Your task to perform on an android device: turn notification dots off Image 0: 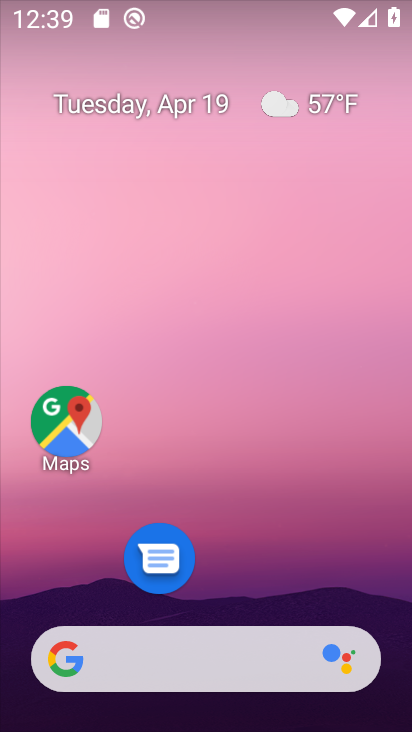
Step 0: drag from (251, 456) to (269, 122)
Your task to perform on an android device: turn notification dots off Image 1: 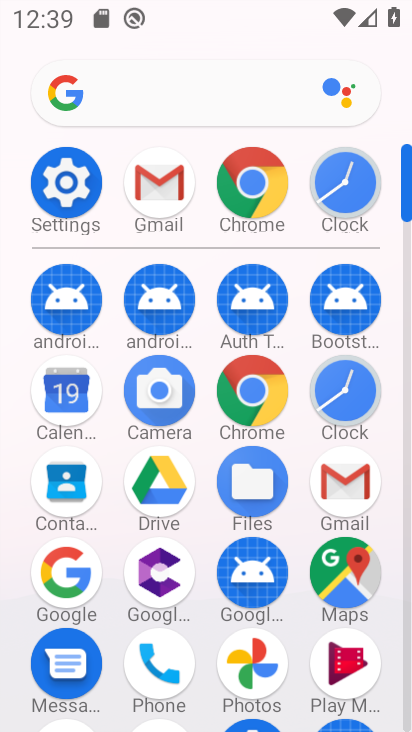
Step 1: click (84, 190)
Your task to perform on an android device: turn notification dots off Image 2: 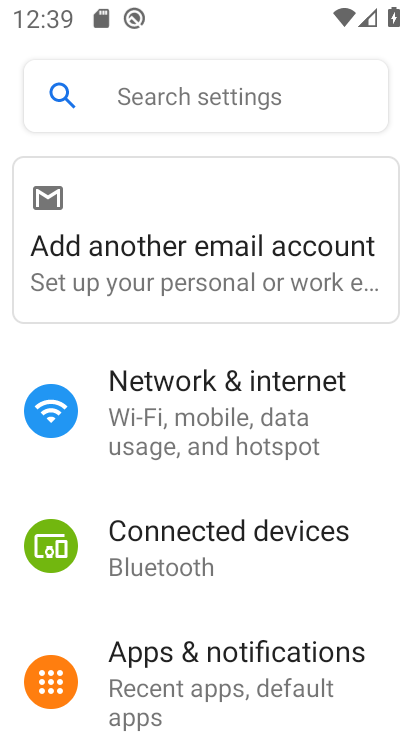
Step 2: click (248, 665)
Your task to perform on an android device: turn notification dots off Image 3: 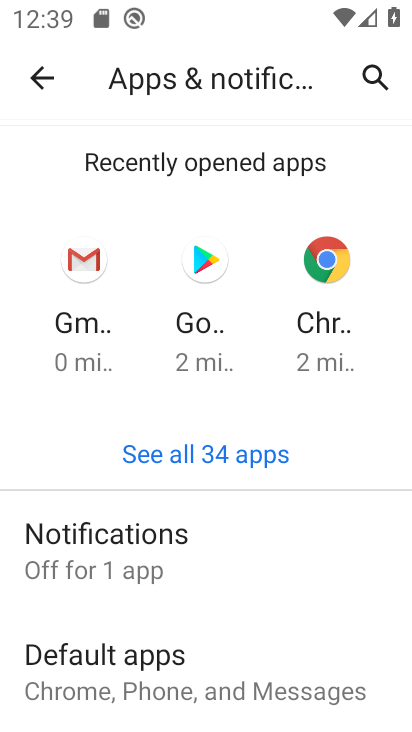
Step 3: click (104, 572)
Your task to perform on an android device: turn notification dots off Image 4: 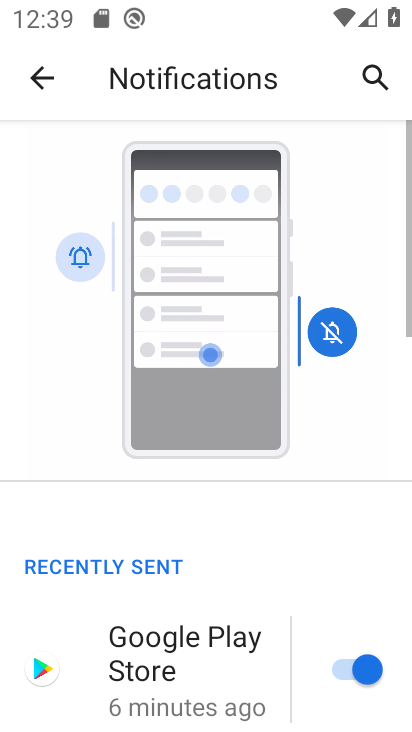
Step 4: drag from (104, 549) to (116, 170)
Your task to perform on an android device: turn notification dots off Image 5: 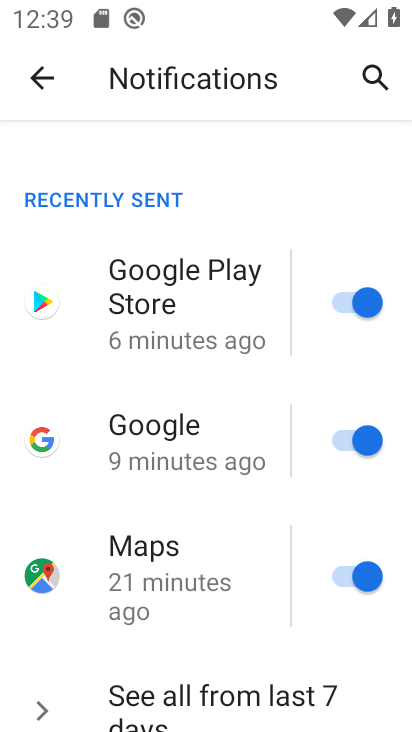
Step 5: drag from (153, 653) to (149, 148)
Your task to perform on an android device: turn notification dots off Image 6: 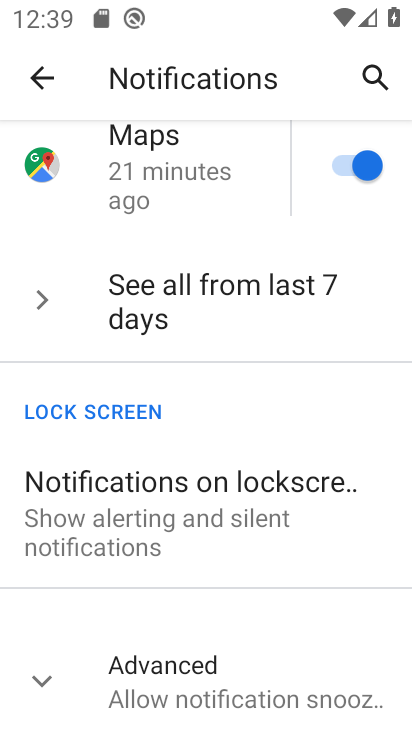
Step 6: click (163, 684)
Your task to perform on an android device: turn notification dots off Image 7: 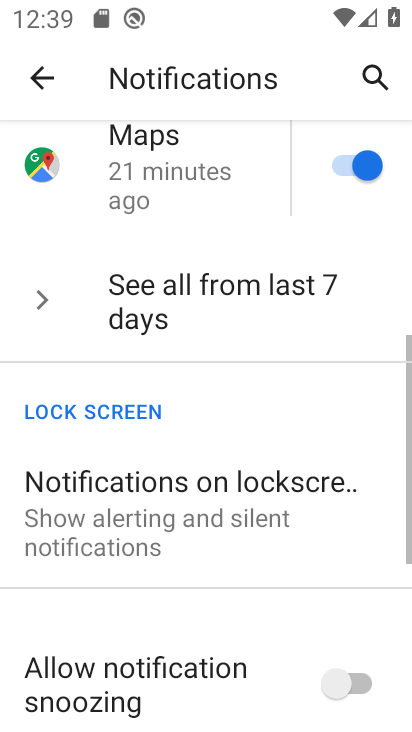
Step 7: drag from (163, 684) to (172, 221)
Your task to perform on an android device: turn notification dots off Image 8: 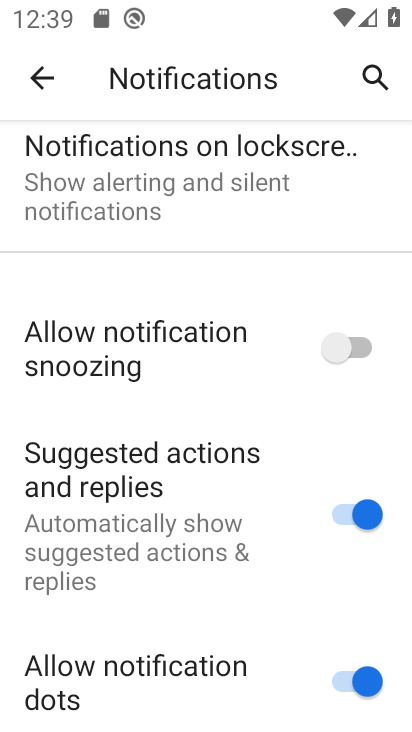
Step 8: click (357, 677)
Your task to perform on an android device: turn notification dots off Image 9: 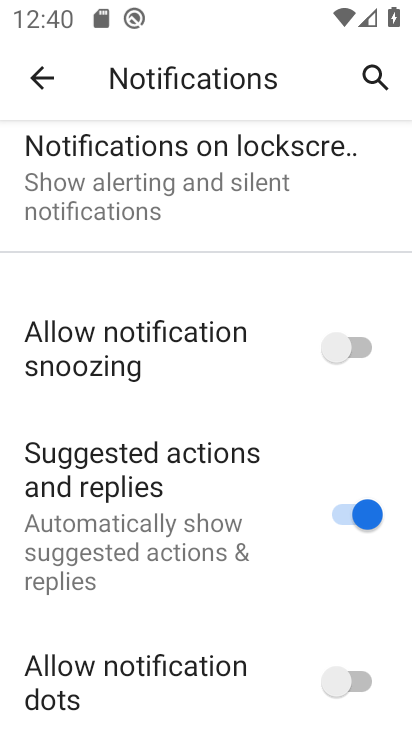
Step 9: task complete